Your task to perform on an android device: toggle sleep mode Image 0: 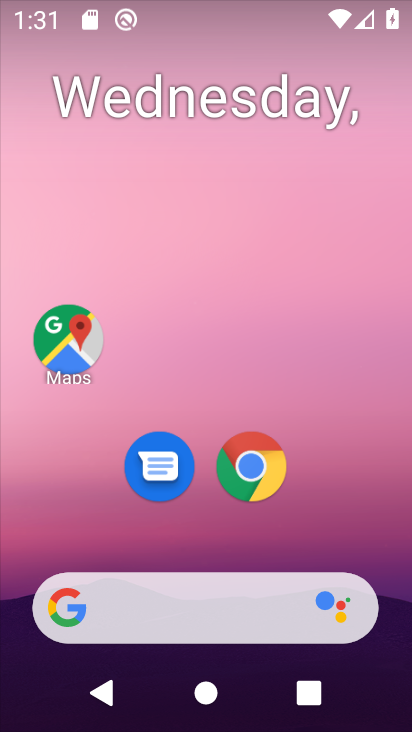
Step 0: click (235, 29)
Your task to perform on an android device: toggle sleep mode Image 1: 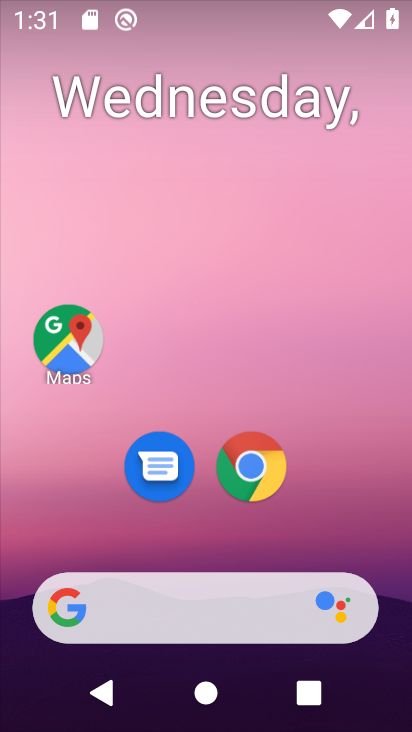
Step 1: drag from (296, 416) to (253, 10)
Your task to perform on an android device: toggle sleep mode Image 2: 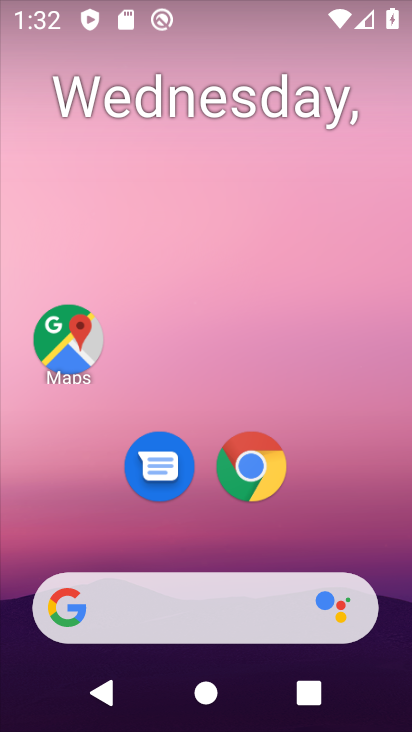
Step 2: drag from (384, 698) to (400, 75)
Your task to perform on an android device: toggle sleep mode Image 3: 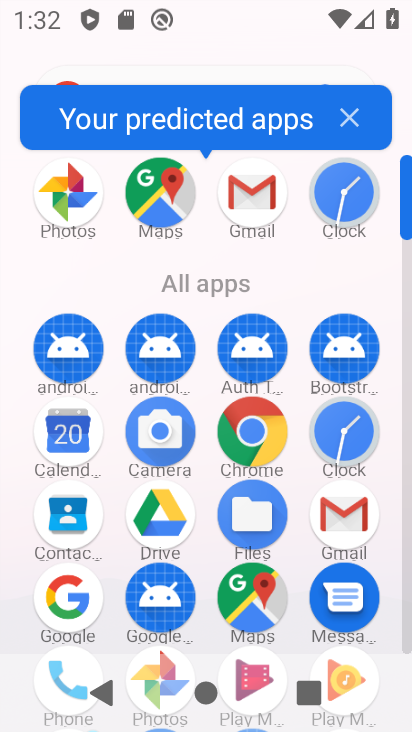
Step 3: drag from (19, 558) to (24, 207)
Your task to perform on an android device: toggle sleep mode Image 4: 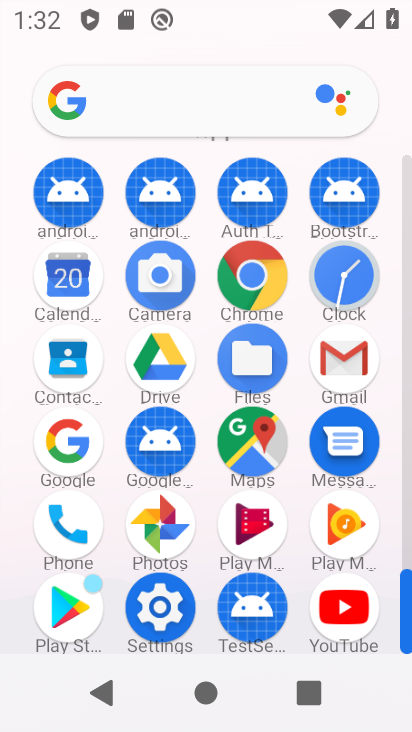
Step 4: click (162, 602)
Your task to perform on an android device: toggle sleep mode Image 5: 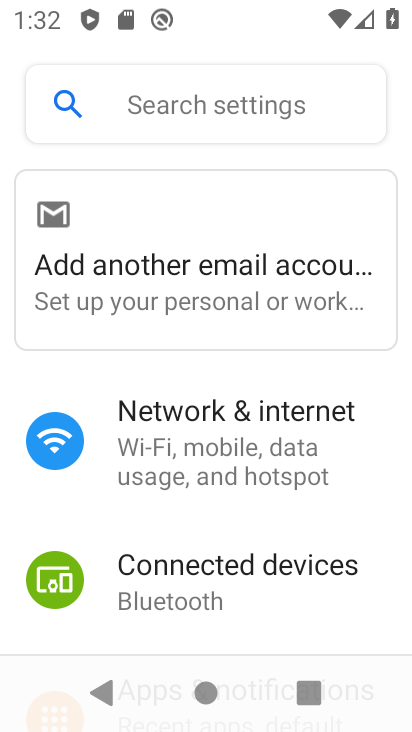
Step 5: drag from (364, 497) to (341, 182)
Your task to perform on an android device: toggle sleep mode Image 6: 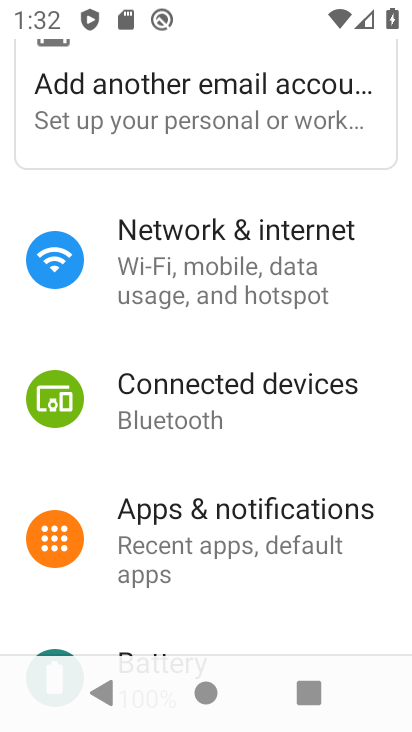
Step 6: drag from (368, 538) to (344, 212)
Your task to perform on an android device: toggle sleep mode Image 7: 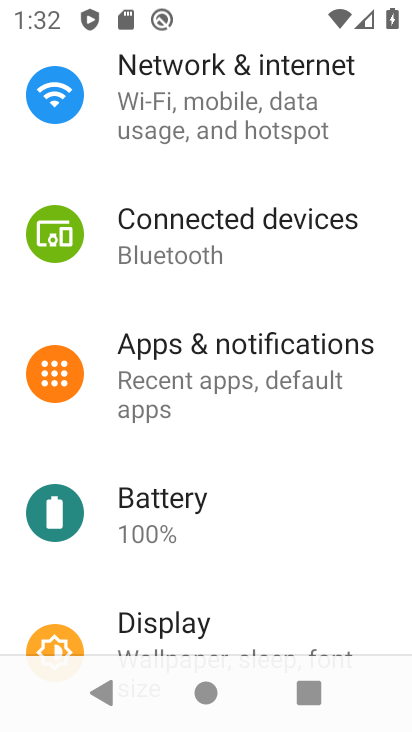
Step 7: drag from (329, 435) to (323, 121)
Your task to perform on an android device: toggle sleep mode Image 8: 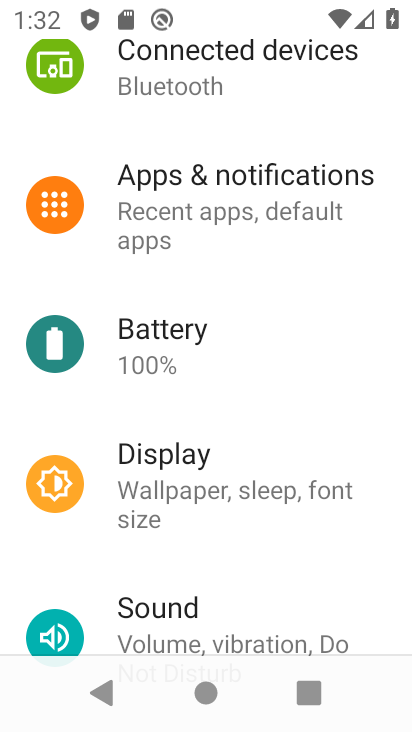
Step 8: click (216, 492)
Your task to perform on an android device: toggle sleep mode Image 9: 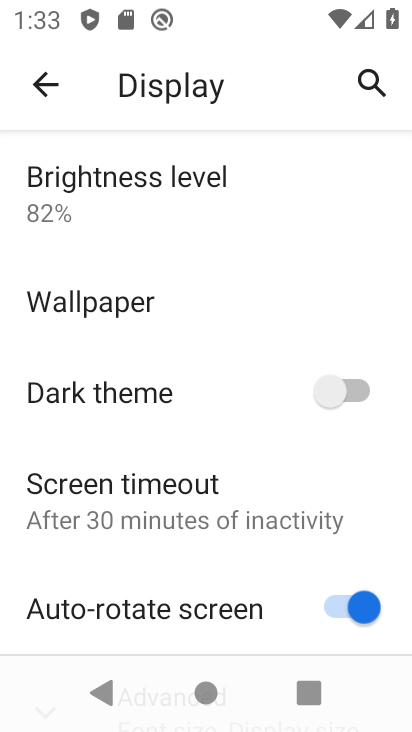
Step 9: drag from (183, 303) to (179, 168)
Your task to perform on an android device: toggle sleep mode Image 10: 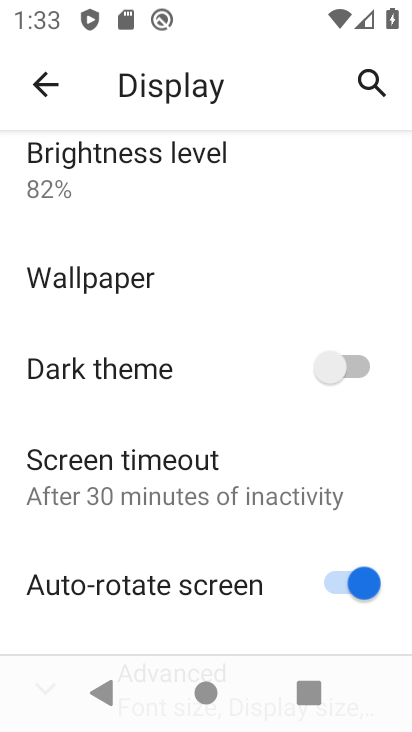
Step 10: drag from (157, 497) to (152, 245)
Your task to perform on an android device: toggle sleep mode Image 11: 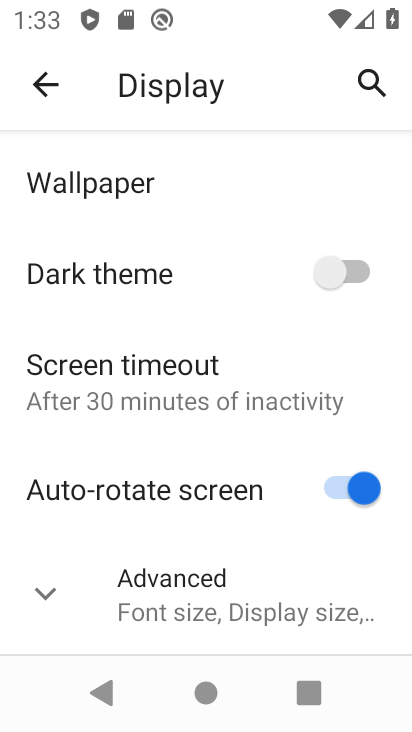
Step 11: click (36, 602)
Your task to perform on an android device: toggle sleep mode Image 12: 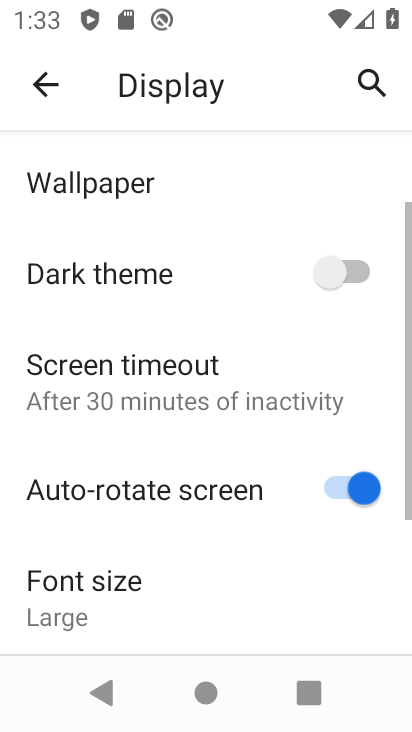
Step 12: drag from (179, 522) to (221, 159)
Your task to perform on an android device: toggle sleep mode Image 13: 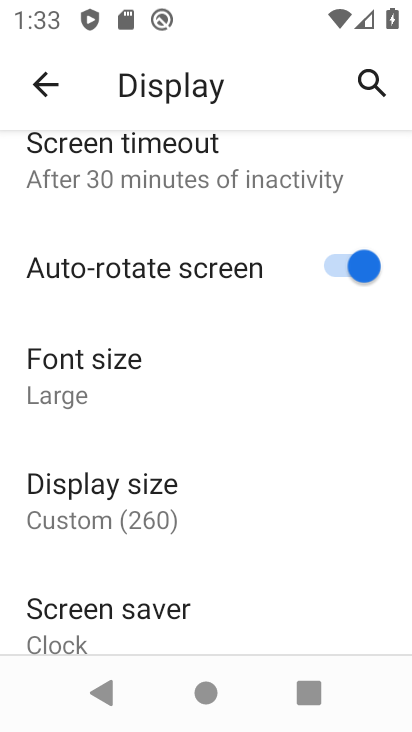
Step 13: drag from (191, 499) to (186, 154)
Your task to perform on an android device: toggle sleep mode Image 14: 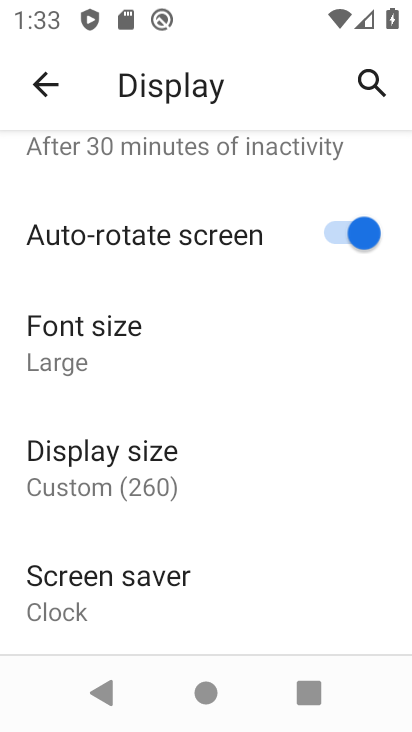
Step 14: click (43, 97)
Your task to perform on an android device: toggle sleep mode Image 15: 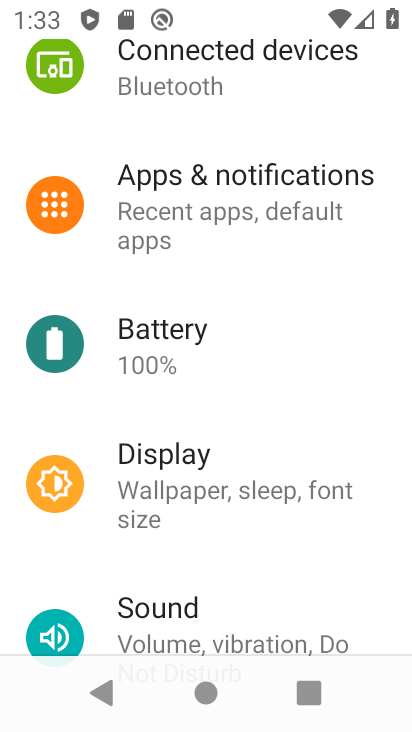
Step 15: click (246, 465)
Your task to perform on an android device: toggle sleep mode Image 16: 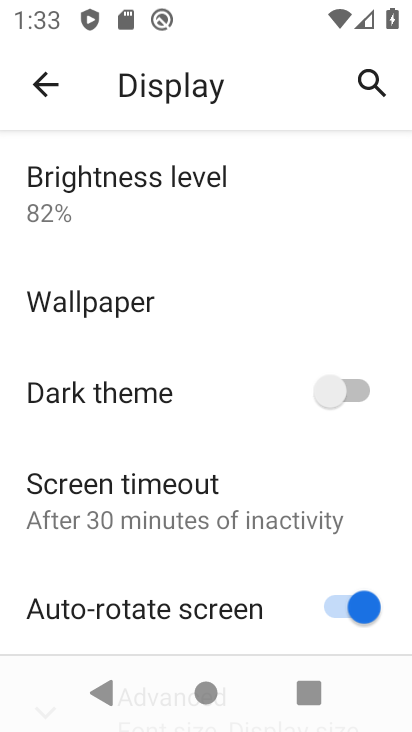
Step 16: drag from (142, 553) to (161, 235)
Your task to perform on an android device: toggle sleep mode Image 17: 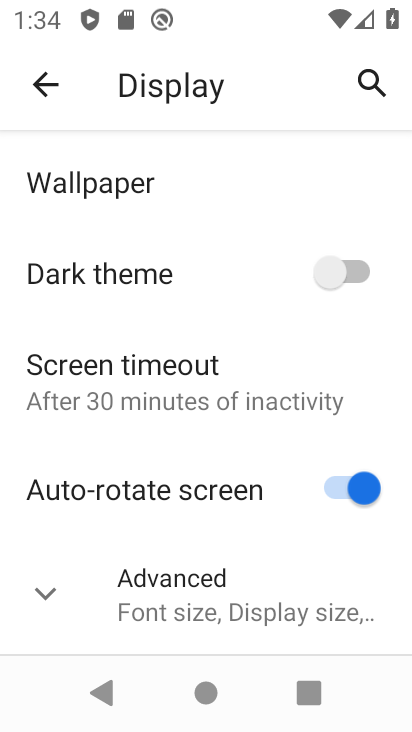
Step 17: click (40, 588)
Your task to perform on an android device: toggle sleep mode Image 18: 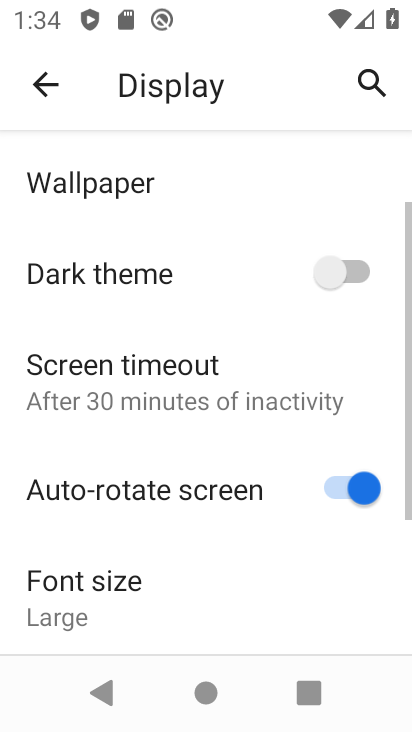
Step 18: task complete